Your task to perform on an android device: open app "The Home Depot" (install if not already installed) and enter user name: "taproot@icloud.com" and password: "executions" Image 0: 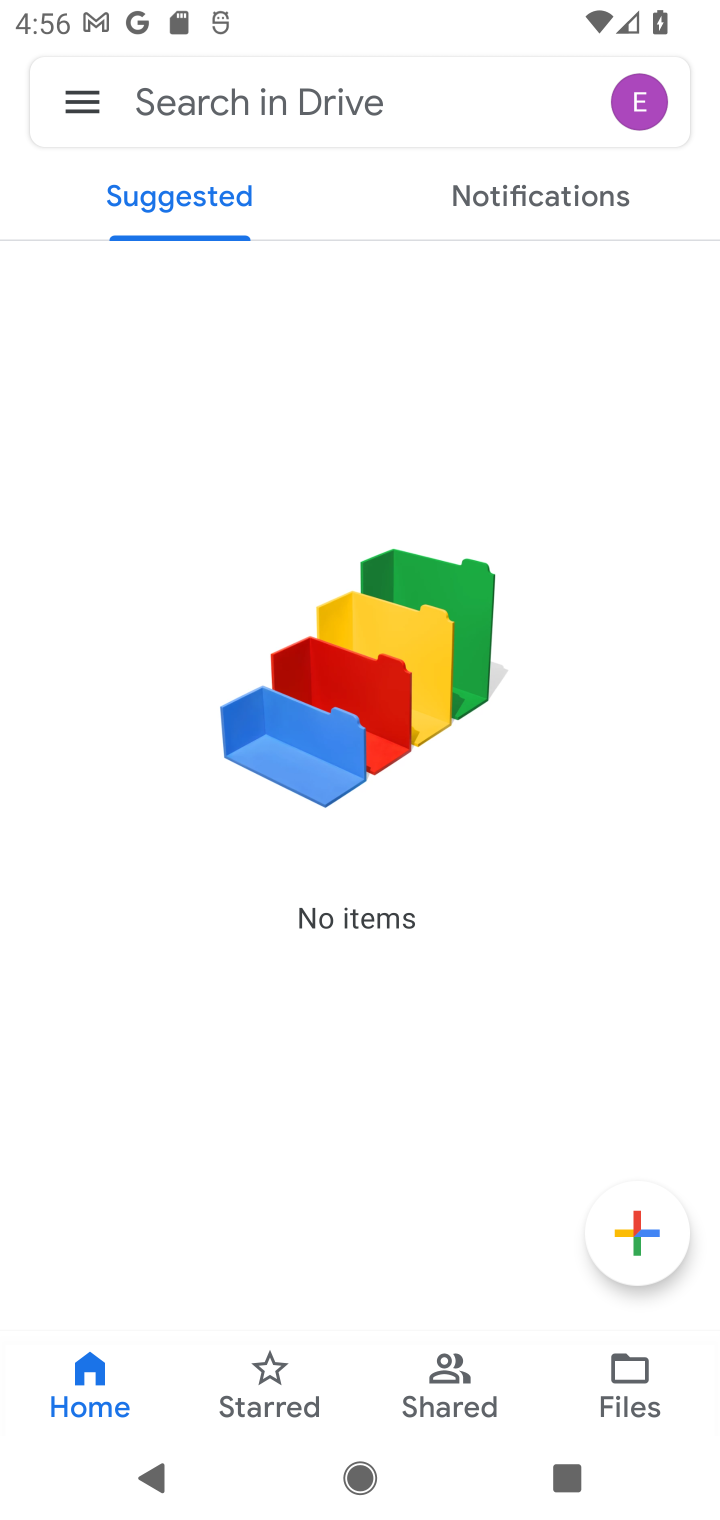
Step 0: press home button
Your task to perform on an android device: open app "The Home Depot" (install if not already installed) and enter user name: "taproot@icloud.com" and password: "executions" Image 1: 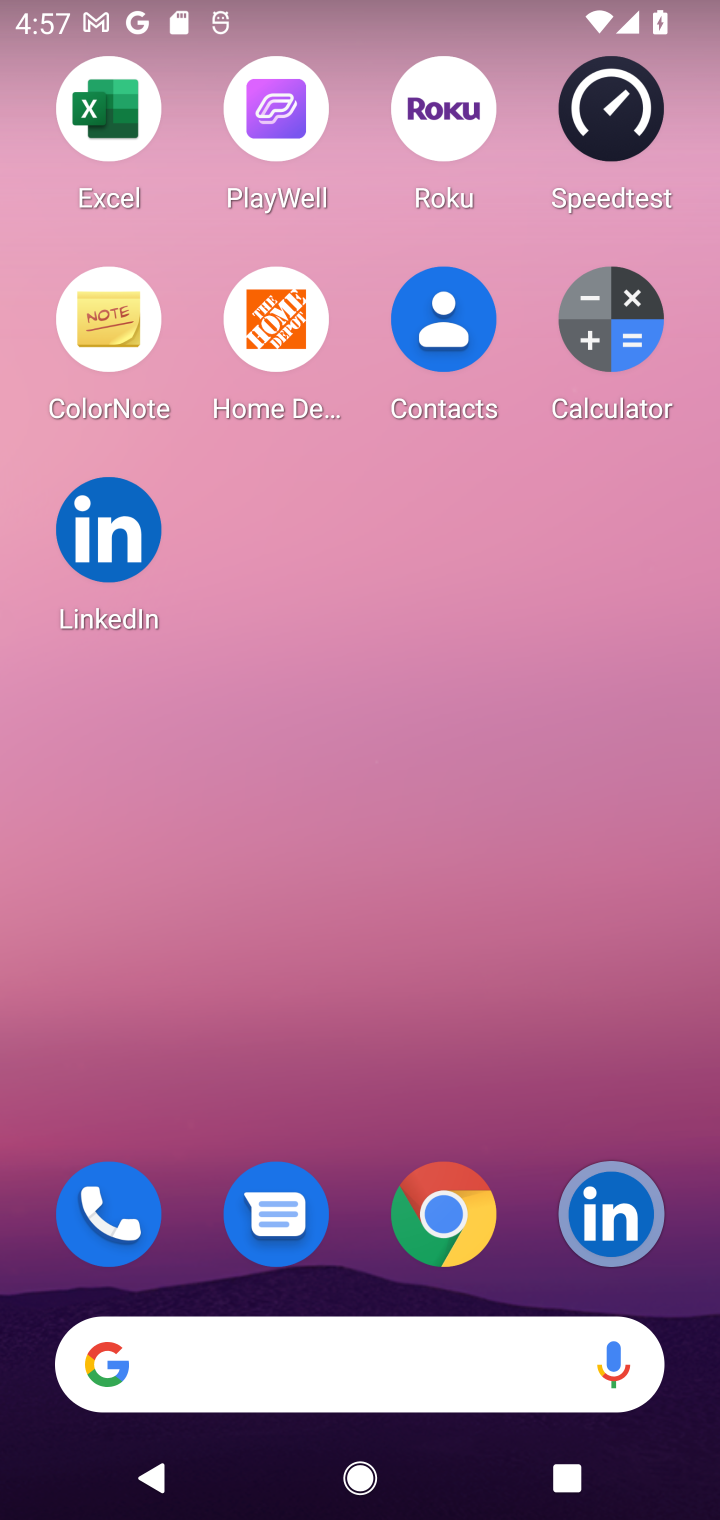
Step 1: drag from (544, 1265) to (547, 60)
Your task to perform on an android device: open app "The Home Depot" (install if not already installed) and enter user name: "taproot@icloud.com" and password: "executions" Image 2: 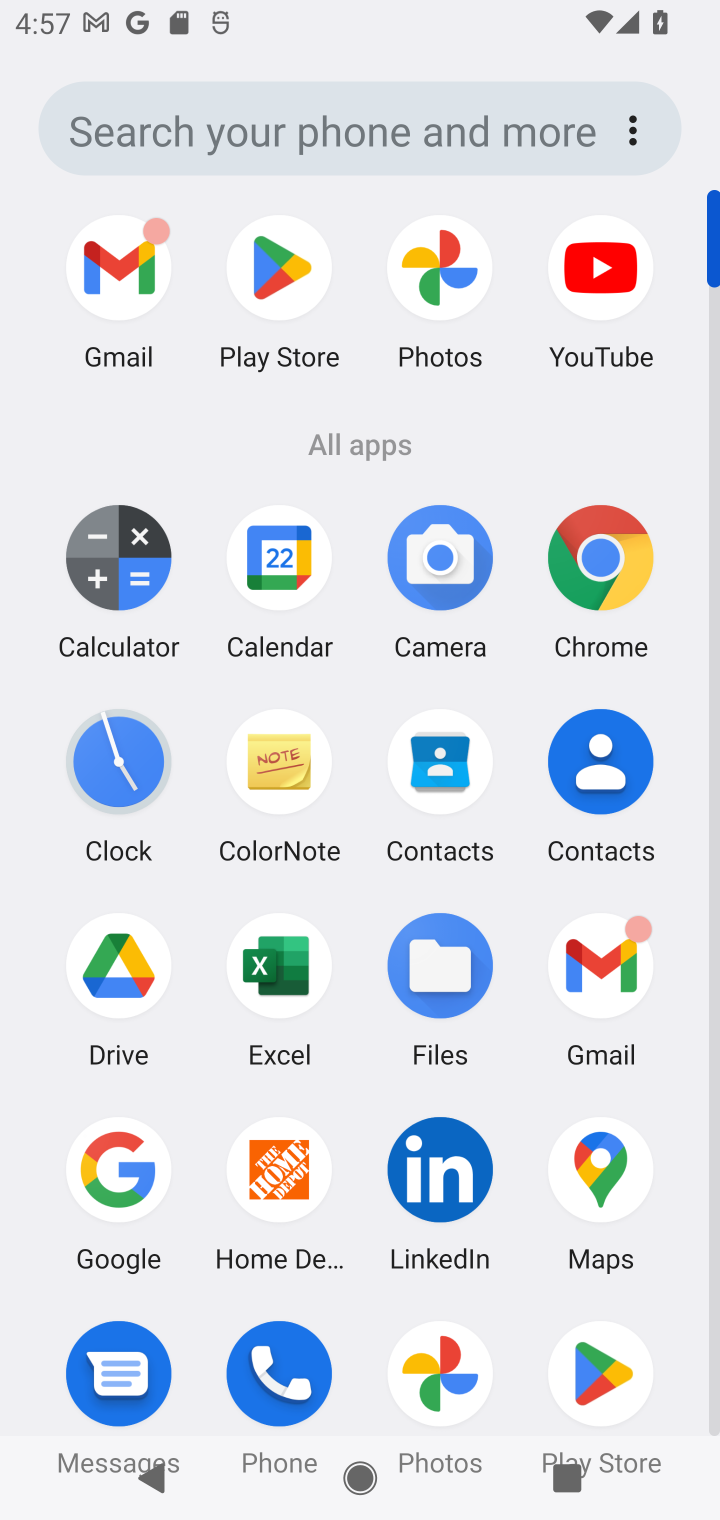
Step 2: click (609, 1373)
Your task to perform on an android device: open app "The Home Depot" (install if not already installed) and enter user name: "taproot@icloud.com" and password: "executions" Image 3: 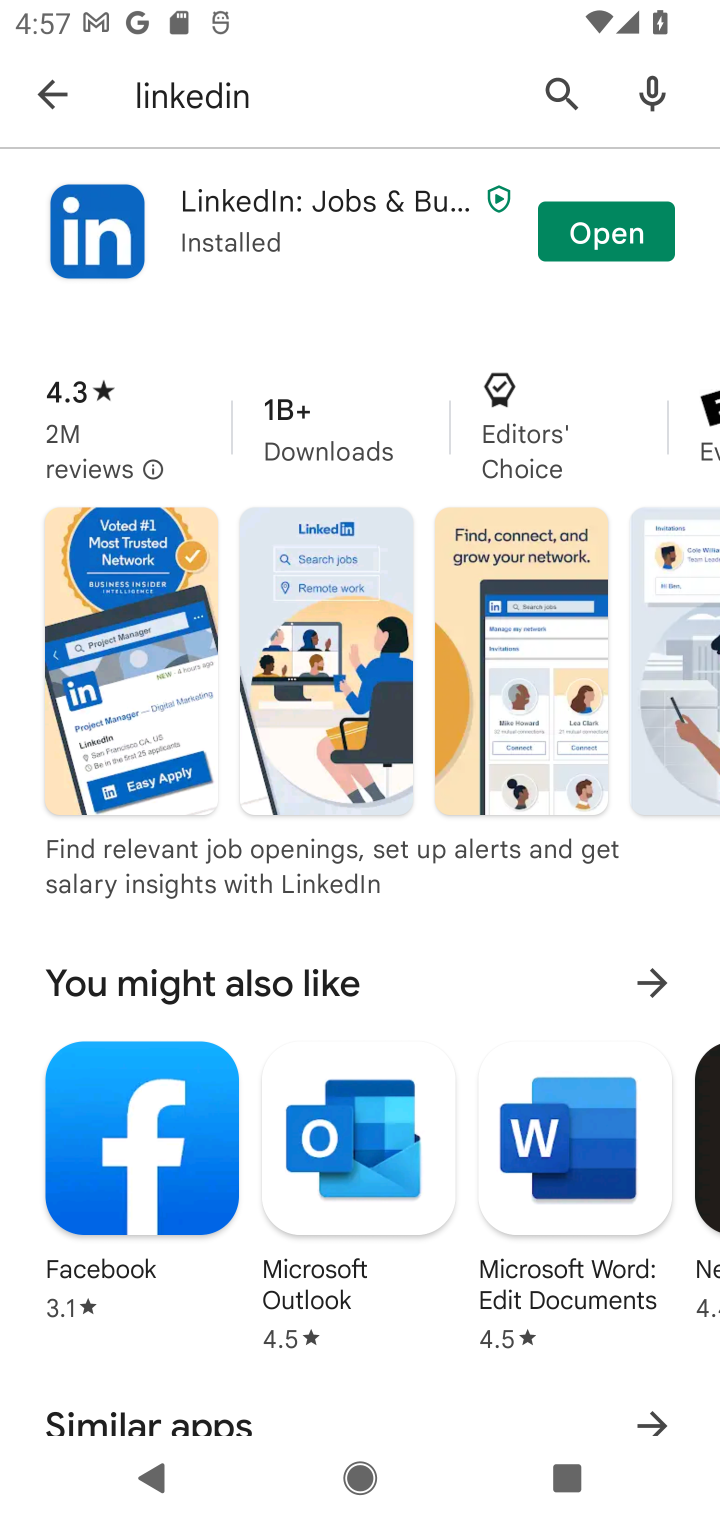
Step 3: click (558, 90)
Your task to perform on an android device: open app "The Home Depot" (install if not already installed) and enter user name: "taproot@icloud.com" and password: "executions" Image 4: 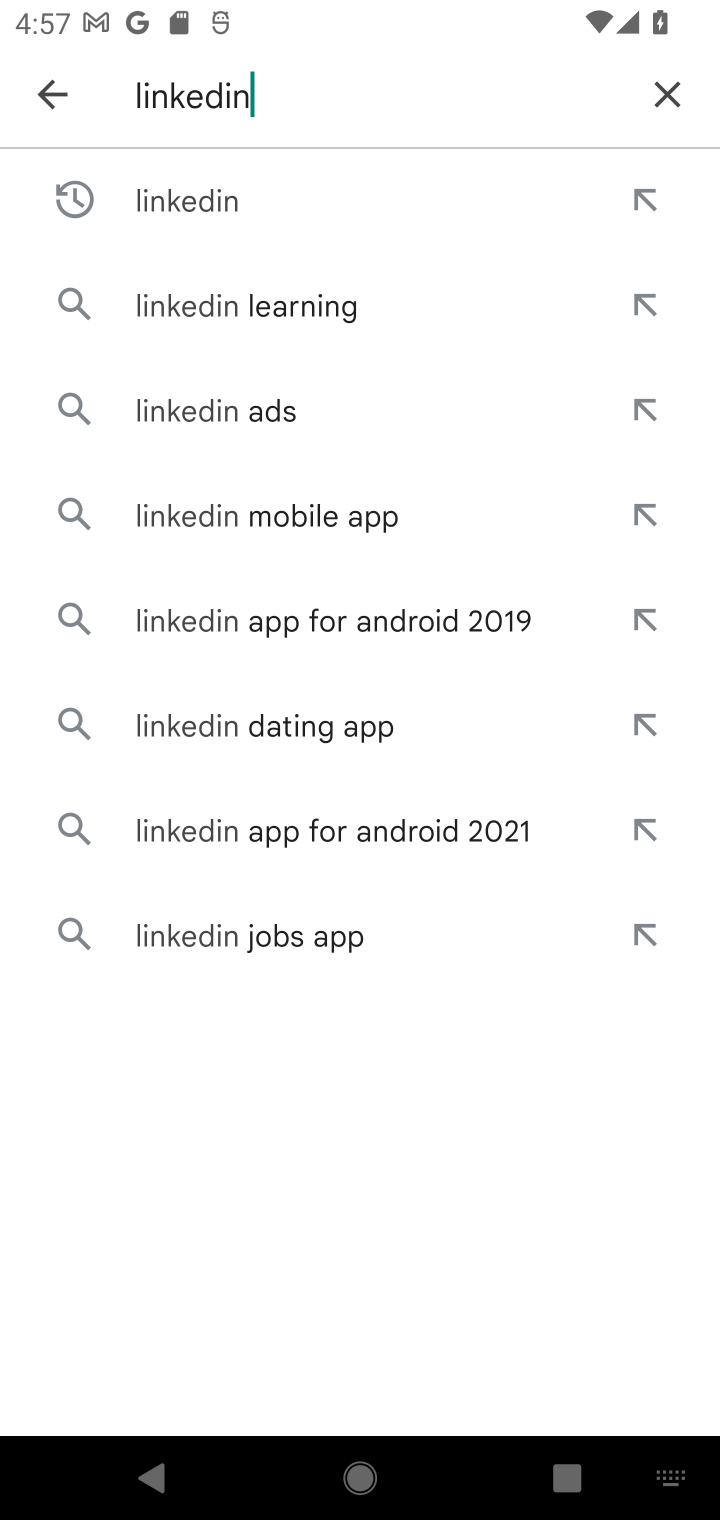
Step 4: click (670, 88)
Your task to perform on an android device: open app "The Home Depot" (install if not already installed) and enter user name: "taproot@icloud.com" and password: "executions" Image 5: 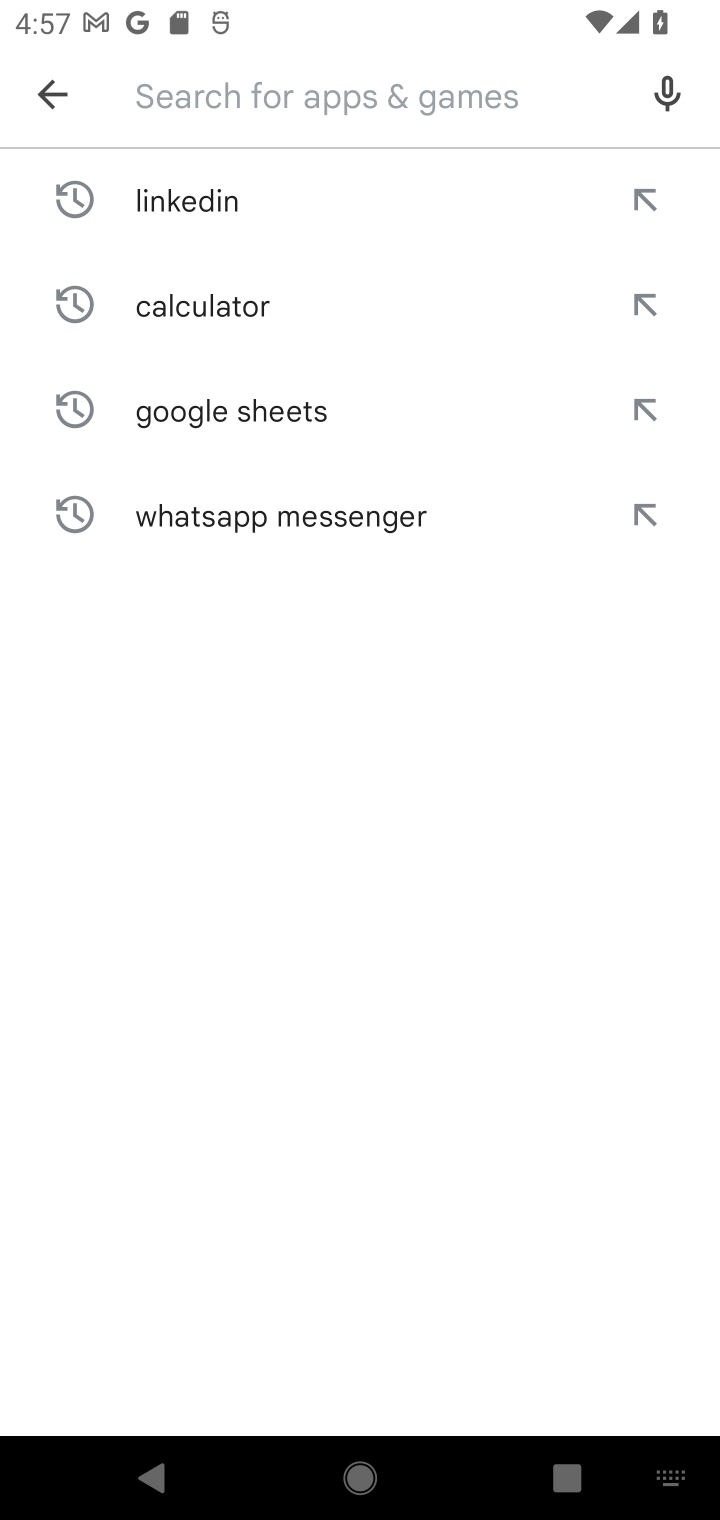
Step 5: type "The home depot"
Your task to perform on an android device: open app "The Home Depot" (install if not already installed) and enter user name: "taproot@icloud.com" and password: "executions" Image 6: 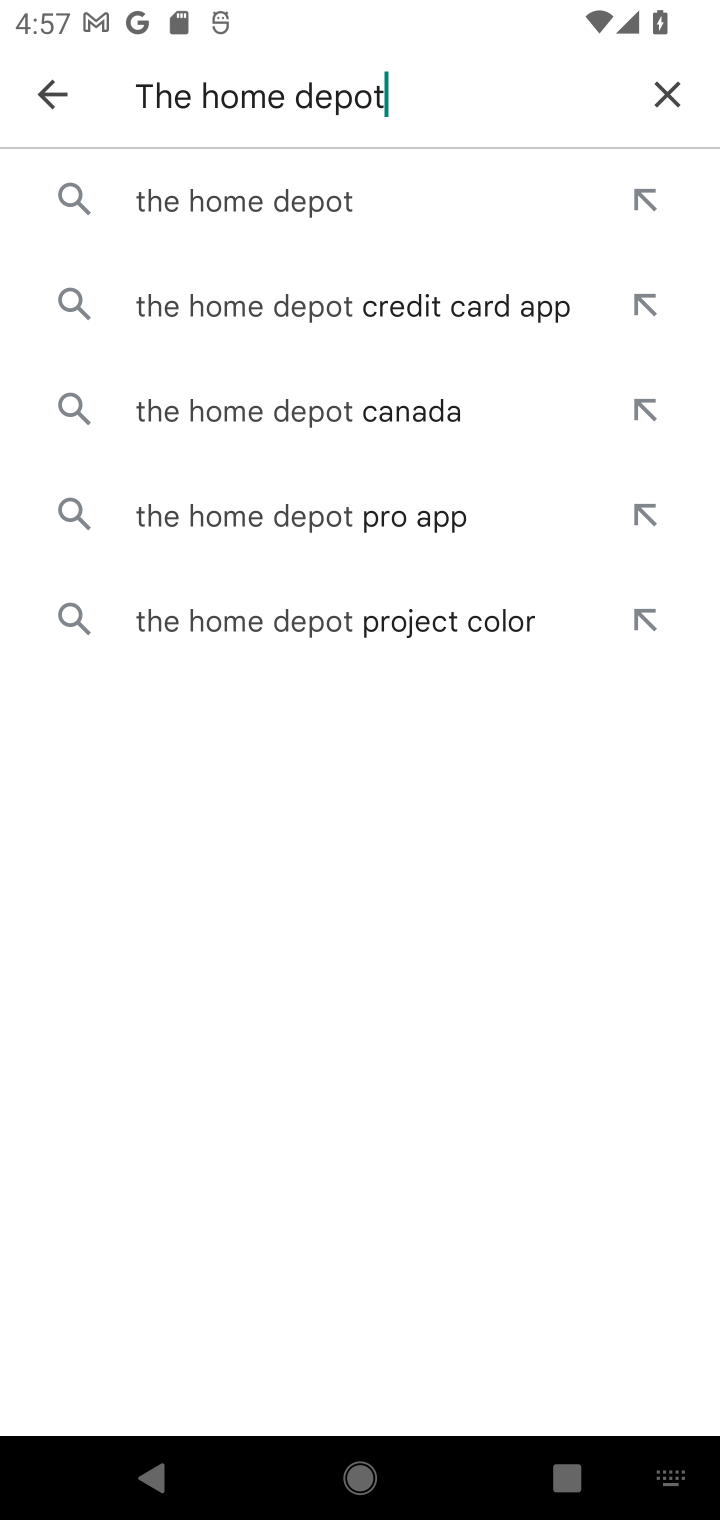
Step 6: click (218, 181)
Your task to perform on an android device: open app "The Home Depot" (install if not already installed) and enter user name: "taproot@icloud.com" and password: "executions" Image 7: 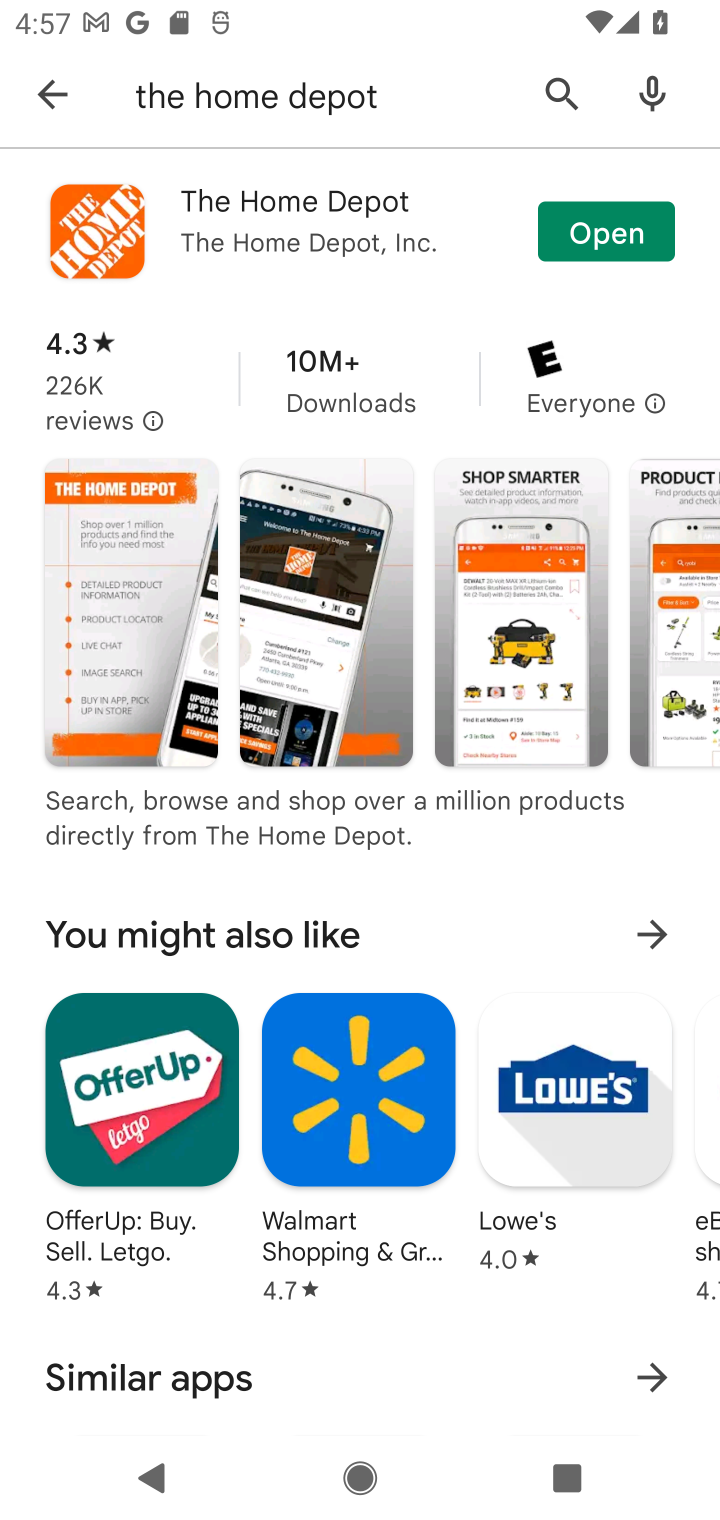
Step 7: click (609, 239)
Your task to perform on an android device: open app "The Home Depot" (install if not already installed) and enter user name: "taproot@icloud.com" and password: "executions" Image 8: 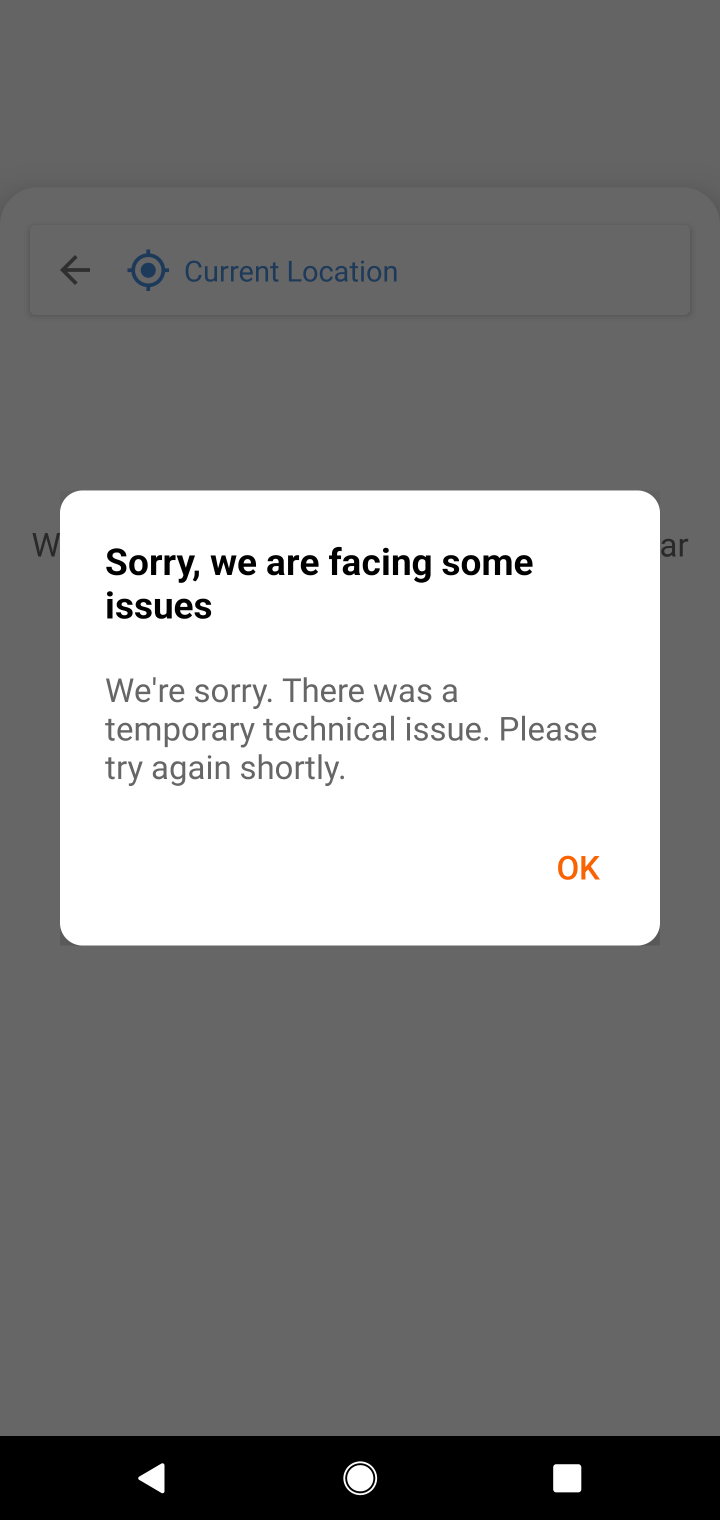
Step 8: click (589, 873)
Your task to perform on an android device: open app "The Home Depot" (install if not already installed) and enter user name: "taproot@icloud.com" and password: "executions" Image 9: 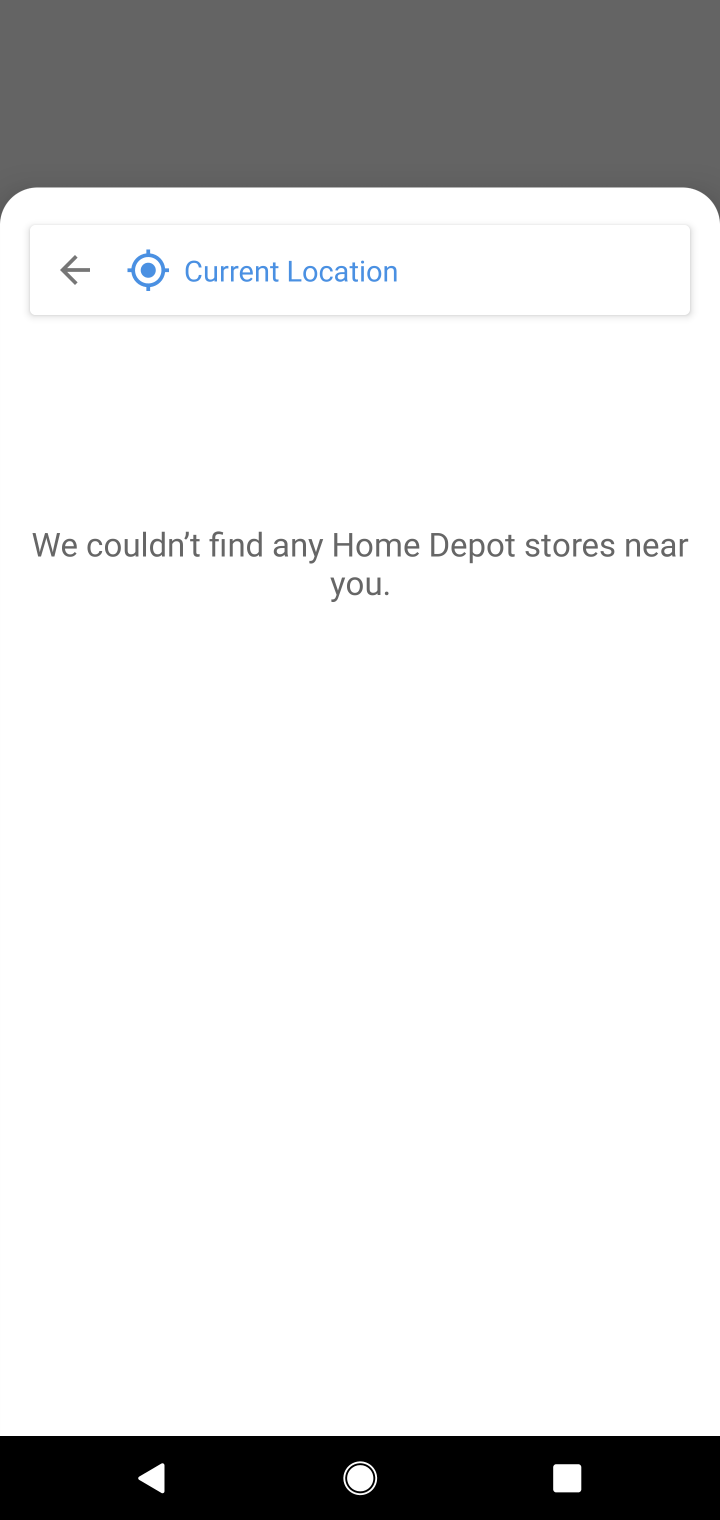
Step 9: task complete